Your task to perform on an android device: change text size in settings app Image 0: 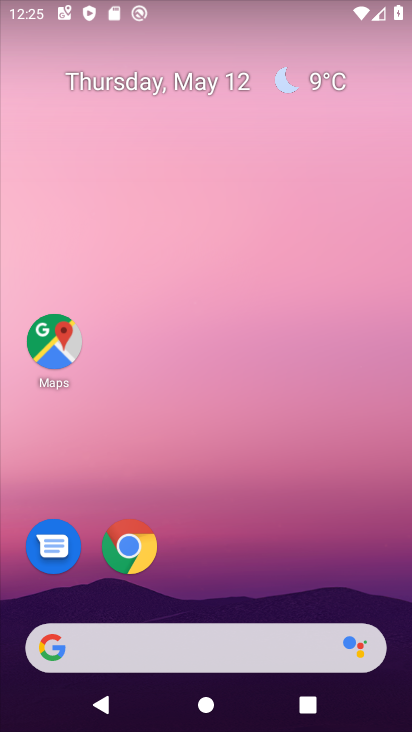
Step 0: drag from (281, 435) to (303, 45)
Your task to perform on an android device: change text size in settings app Image 1: 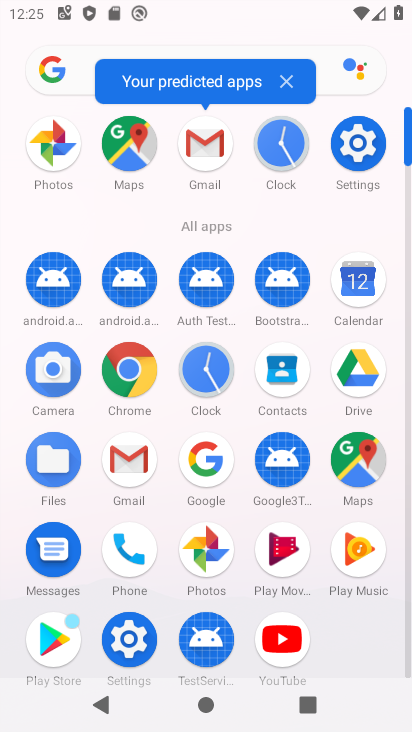
Step 1: click (366, 149)
Your task to perform on an android device: change text size in settings app Image 2: 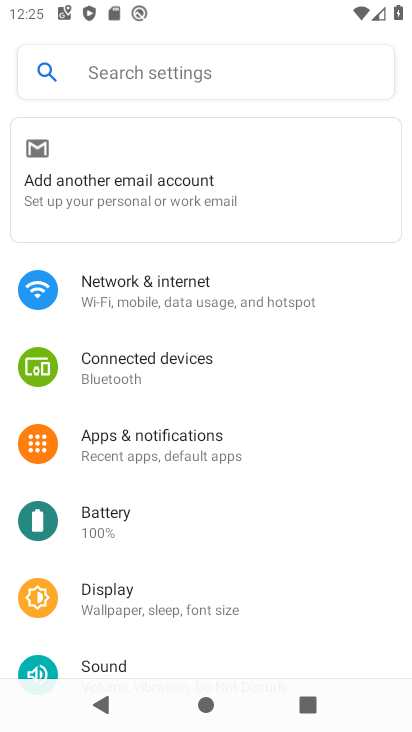
Step 2: click (193, 602)
Your task to perform on an android device: change text size in settings app Image 3: 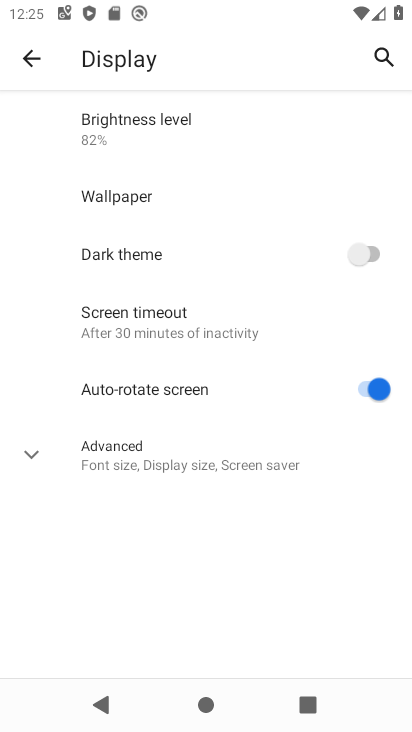
Step 3: click (25, 461)
Your task to perform on an android device: change text size in settings app Image 4: 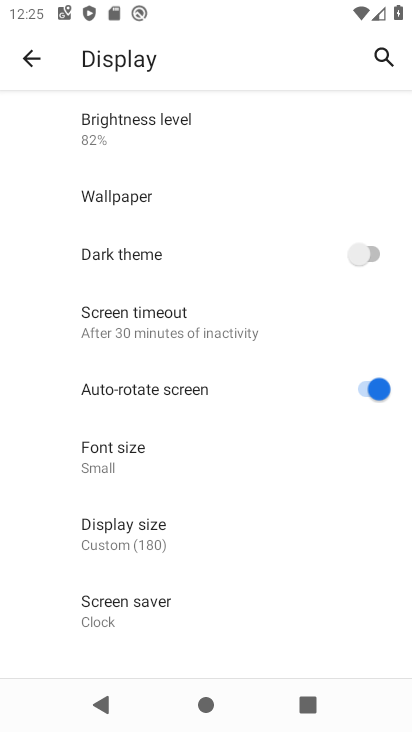
Step 4: click (144, 468)
Your task to perform on an android device: change text size in settings app Image 5: 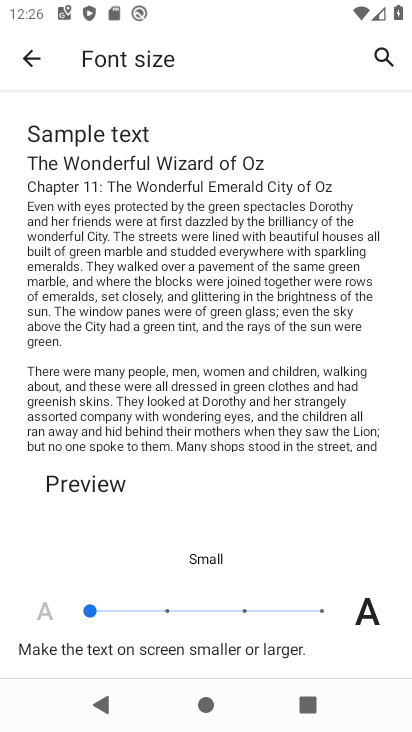
Step 5: click (161, 613)
Your task to perform on an android device: change text size in settings app Image 6: 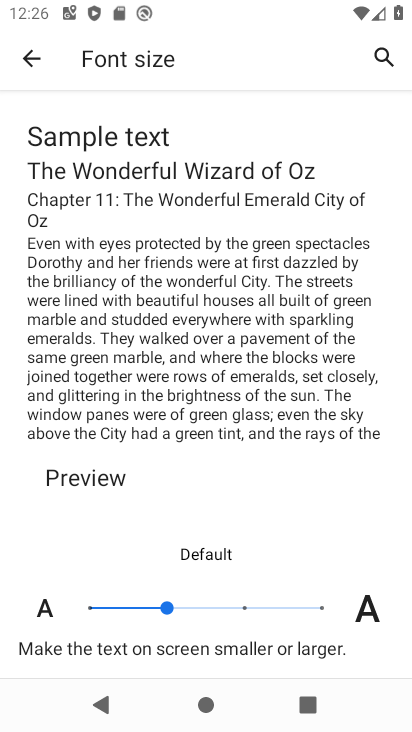
Step 6: task complete